Your task to perform on an android device: clear history in the chrome app Image 0: 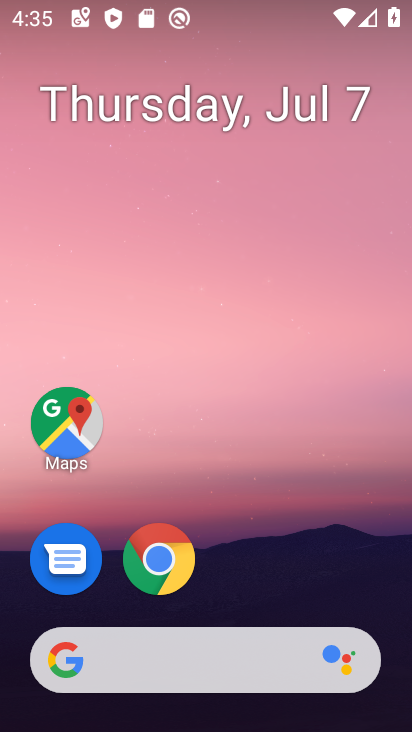
Step 0: drag from (91, 6) to (170, 607)
Your task to perform on an android device: clear history in the chrome app Image 1: 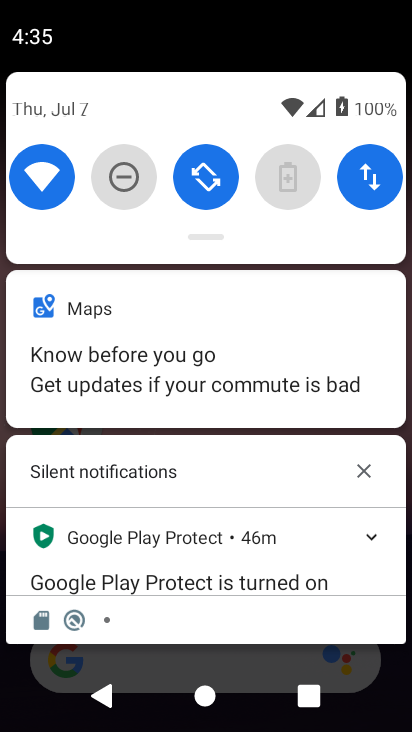
Step 1: click (232, 670)
Your task to perform on an android device: clear history in the chrome app Image 2: 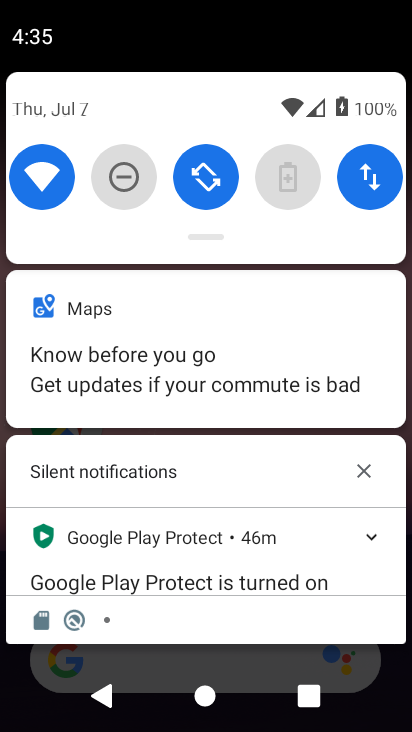
Step 2: drag from (231, 666) to (227, 160)
Your task to perform on an android device: clear history in the chrome app Image 3: 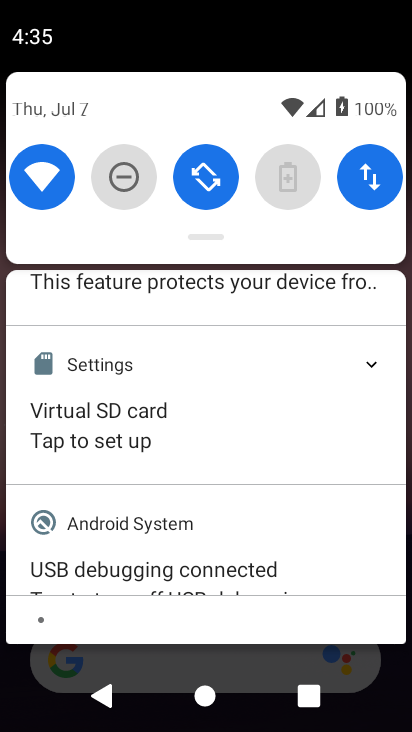
Step 3: press back button
Your task to perform on an android device: clear history in the chrome app Image 4: 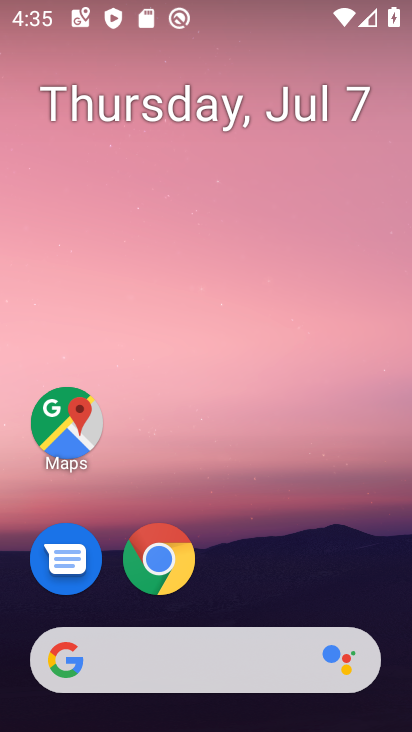
Step 4: click (163, 552)
Your task to perform on an android device: clear history in the chrome app Image 5: 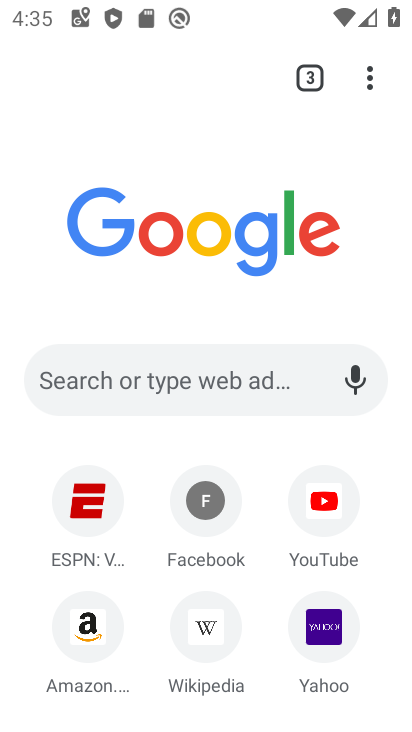
Step 5: drag from (370, 77) to (71, 384)
Your task to perform on an android device: clear history in the chrome app Image 6: 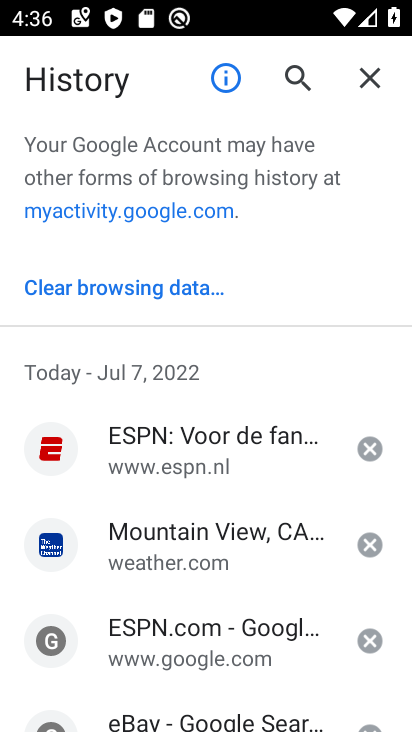
Step 6: click (101, 278)
Your task to perform on an android device: clear history in the chrome app Image 7: 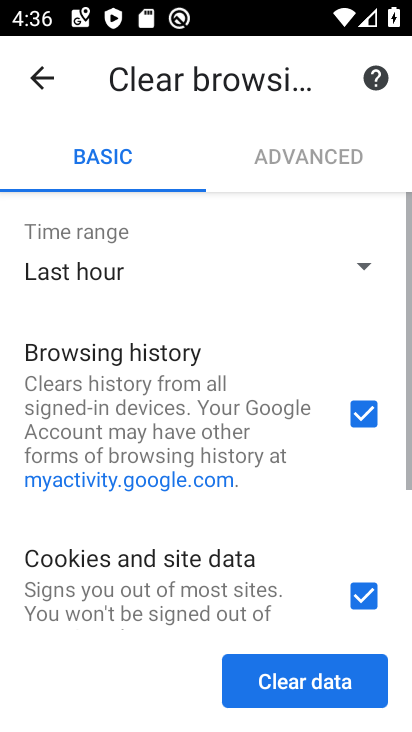
Step 7: click (328, 703)
Your task to perform on an android device: clear history in the chrome app Image 8: 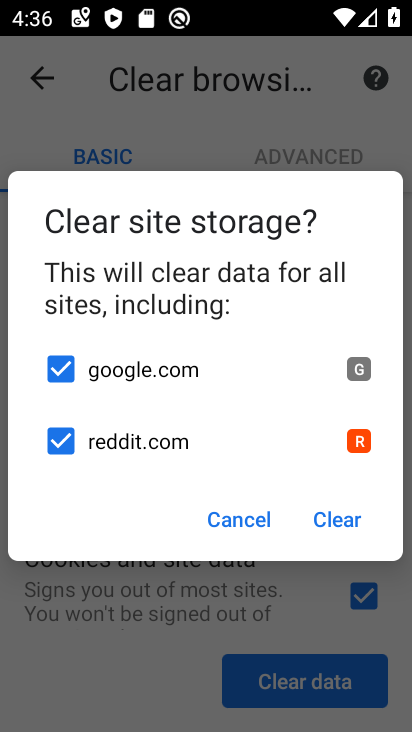
Step 8: click (350, 502)
Your task to perform on an android device: clear history in the chrome app Image 9: 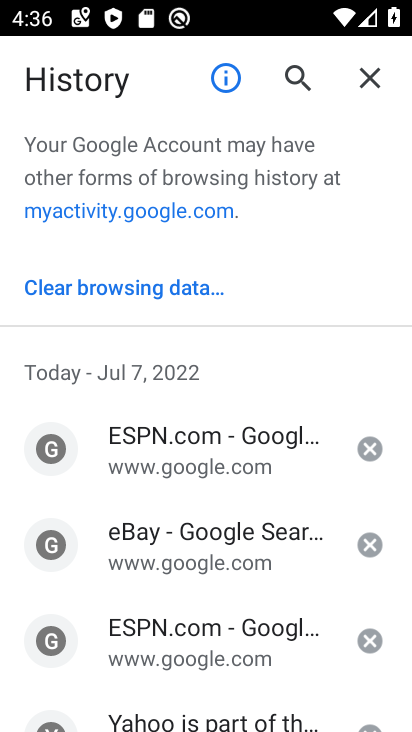
Step 9: task complete